Your task to perform on an android device: Open Youtube and go to "Your channel" Image 0: 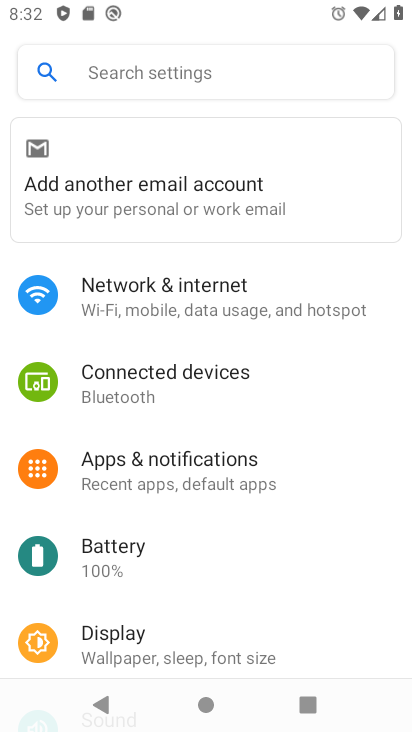
Step 0: press back button
Your task to perform on an android device: Open Youtube and go to "Your channel" Image 1: 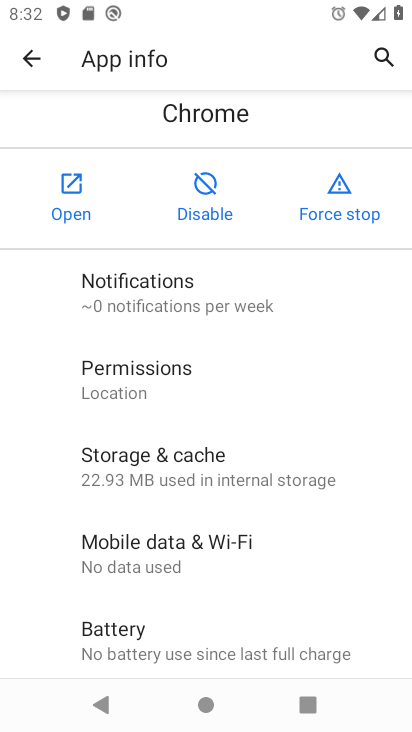
Step 1: press home button
Your task to perform on an android device: Open Youtube and go to "Your channel" Image 2: 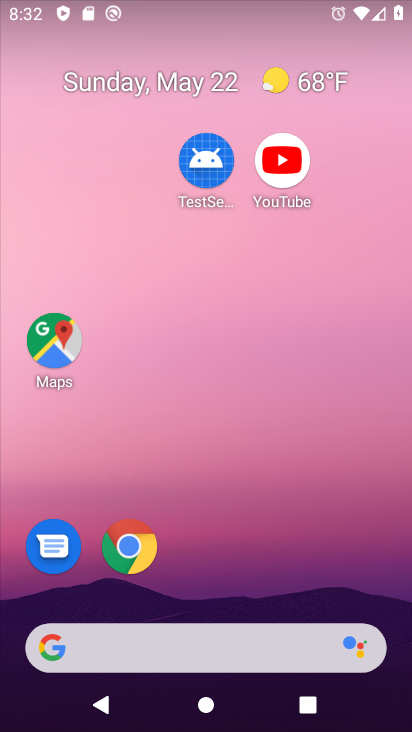
Step 2: drag from (290, 673) to (281, 0)
Your task to perform on an android device: Open Youtube and go to "Your channel" Image 3: 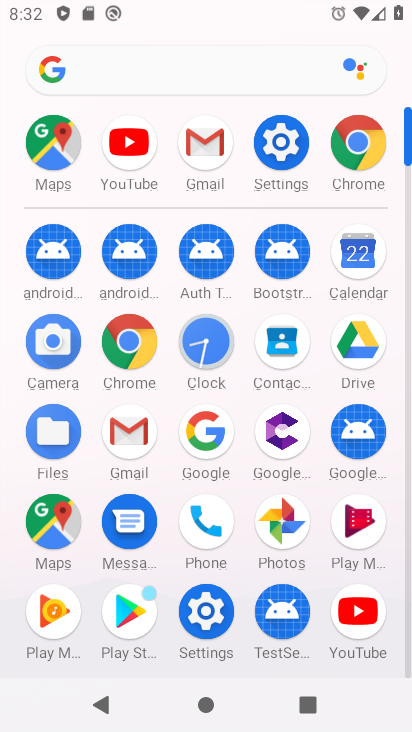
Step 3: click (351, 617)
Your task to perform on an android device: Open Youtube and go to "Your channel" Image 4: 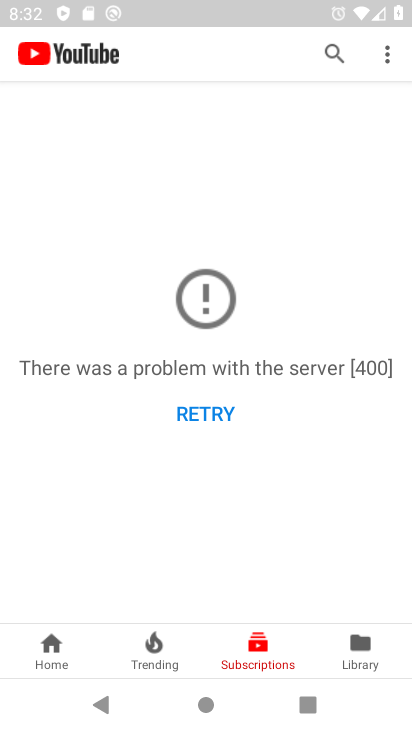
Step 4: task complete